Your task to perform on an android device: Go to calendar. Show me events next week Image 0: 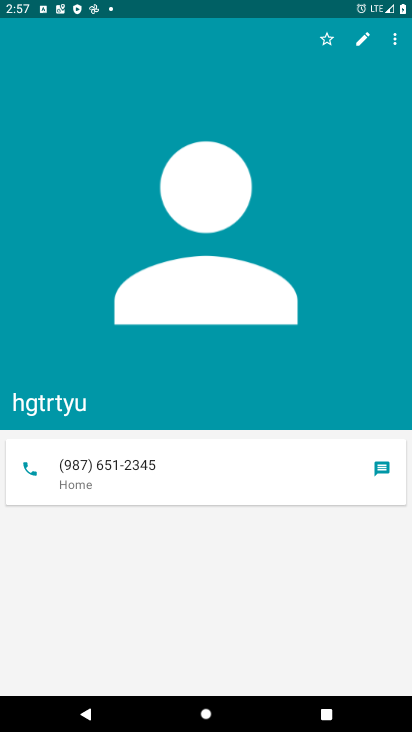
Step 0: press home button
Your task to perform on an android device: Go to calendar. Show me events next week Image 1: 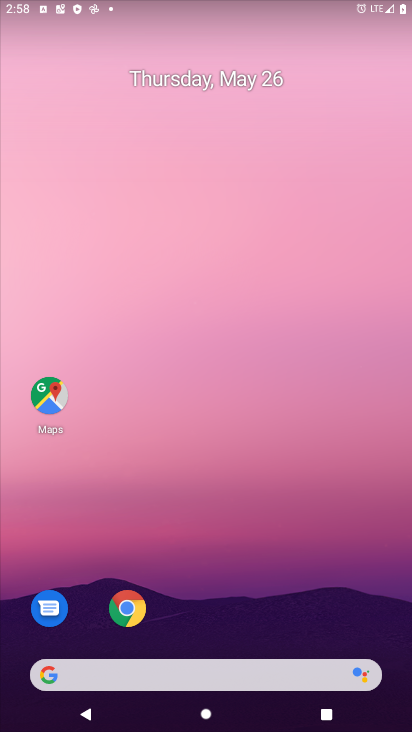
Step 1: drag from (401, 613) to (315, 121)
Your task to perform on an android device: Go to calendar. Show me events next week Image 2: 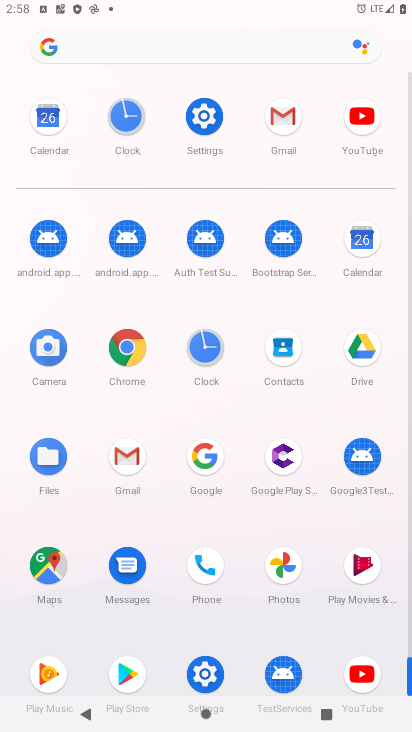
Step 2: click (359, 242)
Your task to perform on an android device: Go to calendar. Show me events next week Image 3: 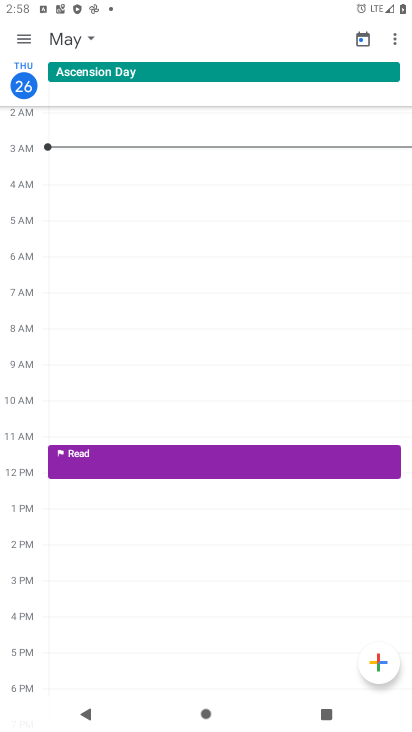
Step 3: click (28, 46)
Your task to perform on an android device: Go to calendar. Show me events next week Image 4: 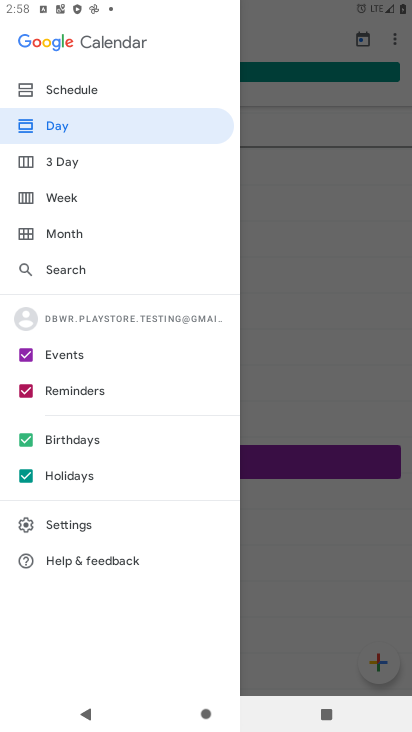
Step 4: click (55, 203)
Your task to perform on an android device: Go to calendar. Show me events next week Image 5: 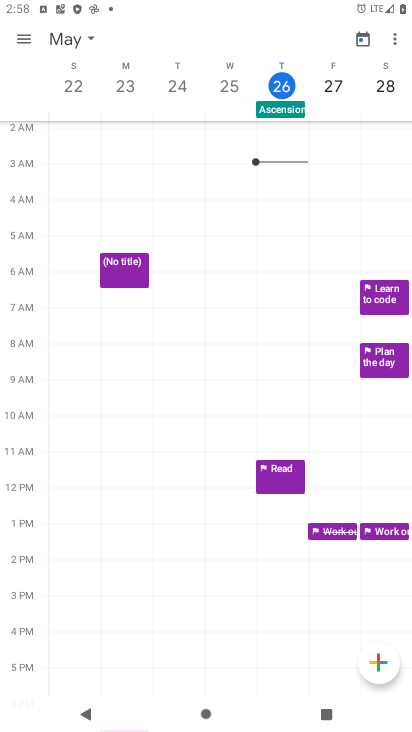
Step 5: click (87, 40)
Your task to perform on an android device: Go to calendar. Show me events next week Image 6: 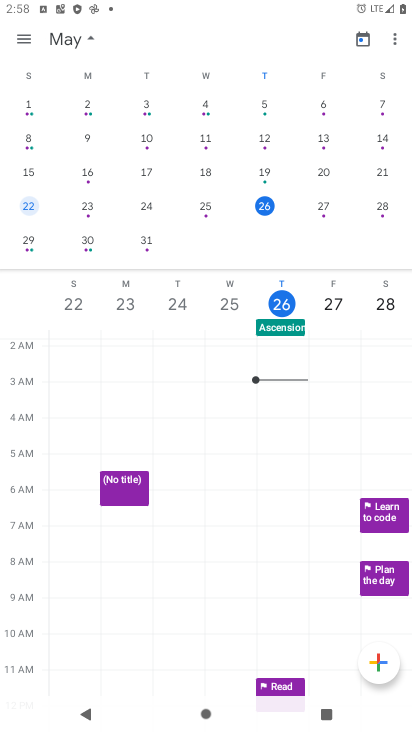
Step 6: click (24, 246)
Your task to perform on an android device: Go to calendar. Show me events next week Image 7: 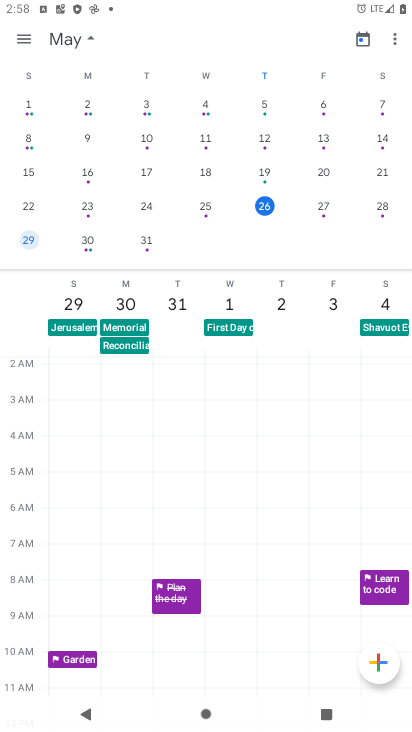
Step 7: task complete